Your task to perform on an android device: Show me recent news Image 0: 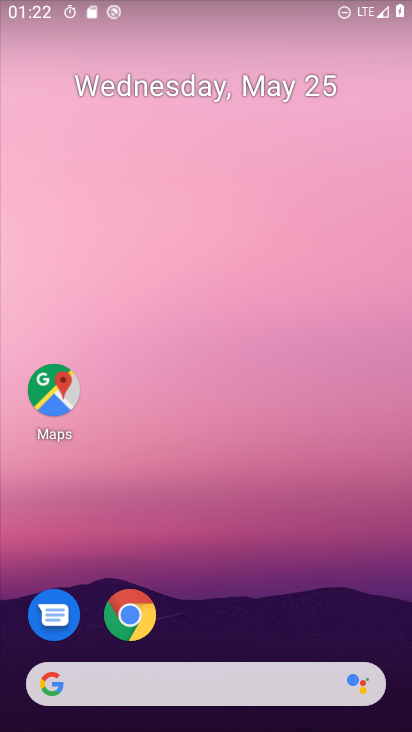
Step 0: drag from (279, 700) to (311, 206)
Your task to perform on an android device: Show me recent news Image 1: 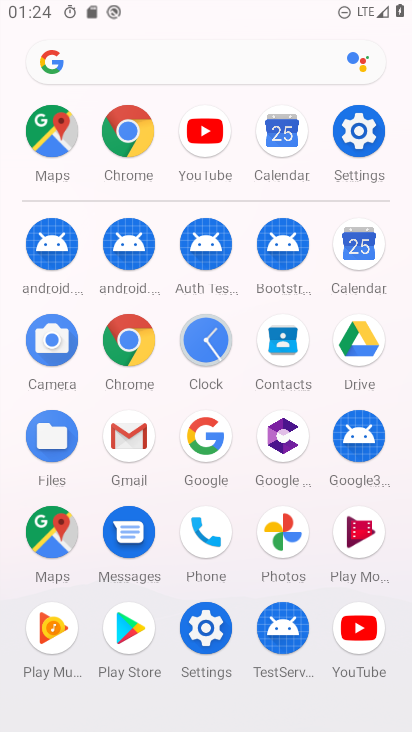
Step 1: click (161, 50)
Your task to perform on an android device: Show me recent news Image 2: 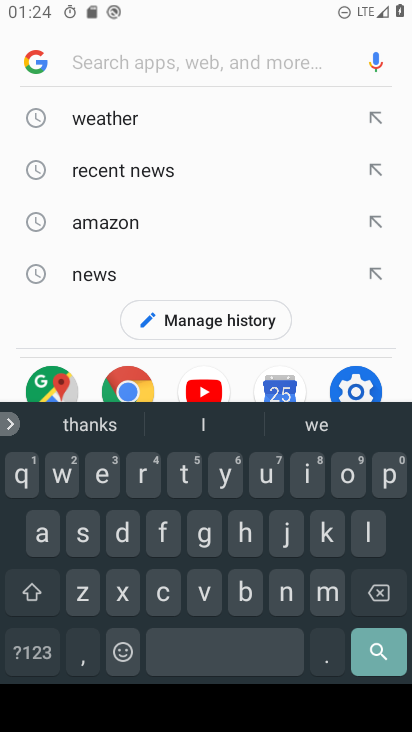
Step 2: click (127, 170)
Your task to perform on an android device: Show me recent news Image 3: 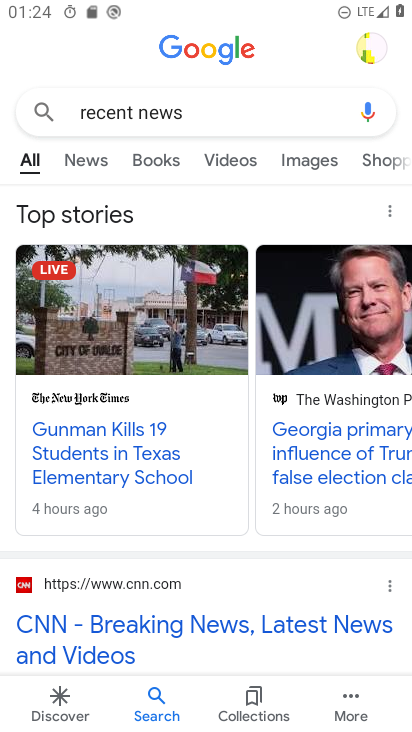
Step 3: task complete